Your task to perform on an android device: create a new album in the google photos Image 0: 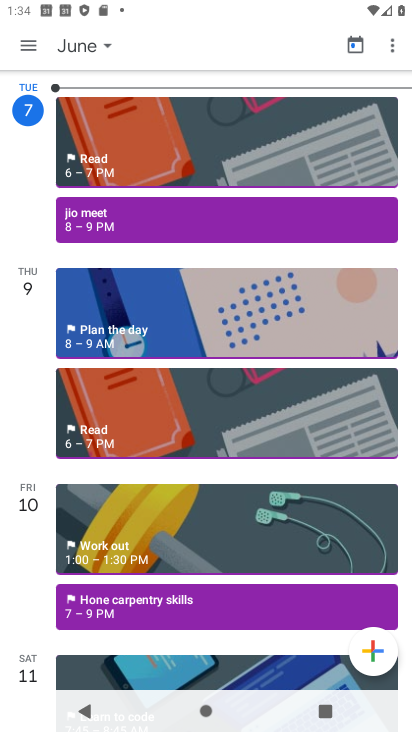
Step 0: press home button
Your task to perform on an android device: create a new album in the google photos Image 1: 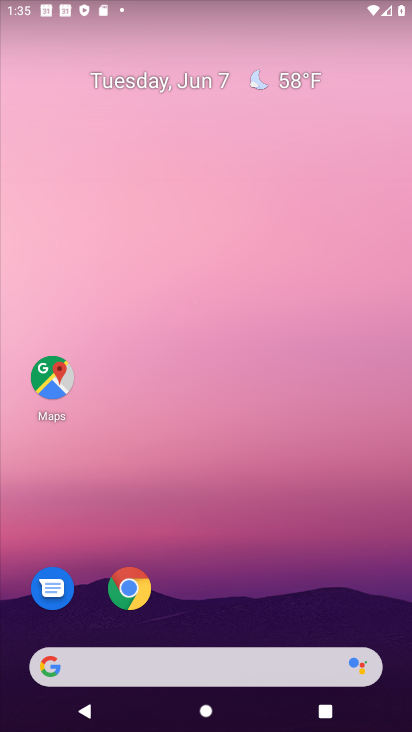
Step 1: drag from (350, 616) to (332, 363)
Your task to perform on an android device: create a new album in the google photos Image 2: 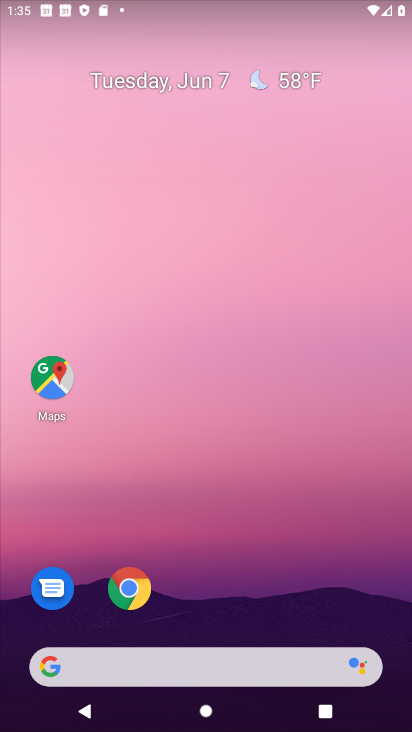
Step 2: drag from (271, 572) to (171, 227)
Your task to perform on an android device: create a new album in the google photos Image 3: 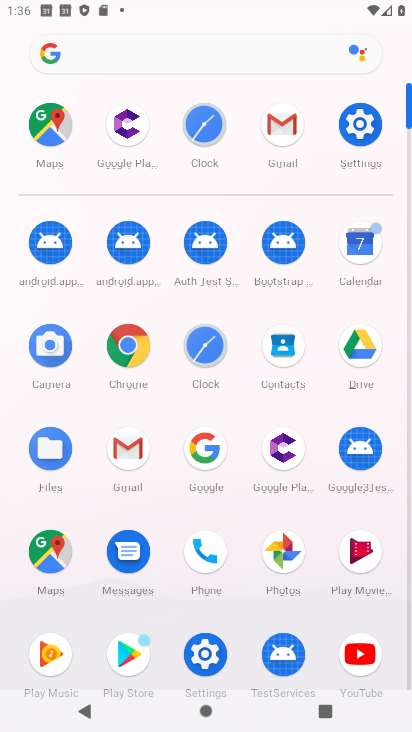
Step 3: click (291, 572)
Your task to perform on an android device: create a new album in the google photos Image 4: 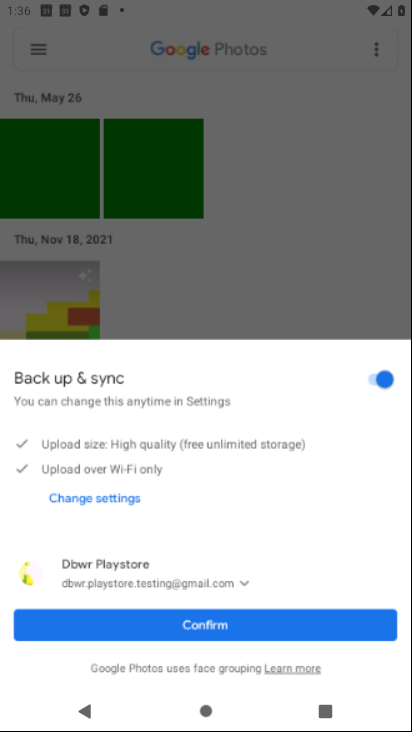
Step 4: click (245, 627)
Your task to perform on an android device: create a new album in the google photos Image 5: 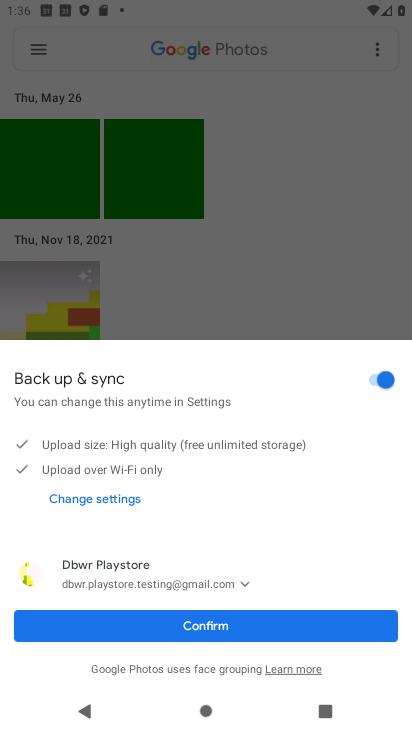
Step 5: click (245, 627)
Your task to perform on an android device: create a new album in the google photos Image 6: 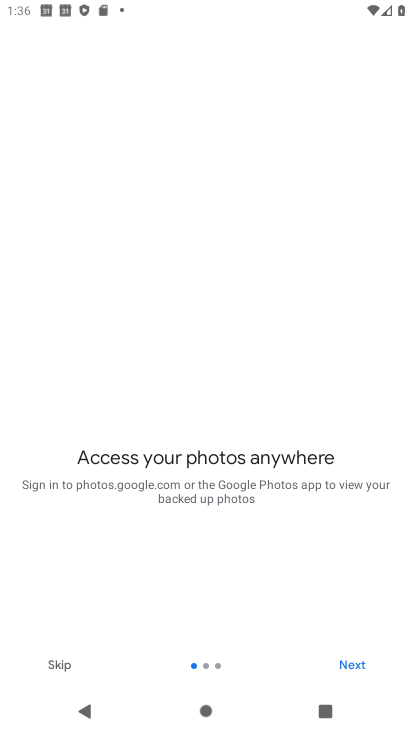
Step 6: click (356, 664)
Your task to perform on an android device: create a new album in the google photos Image 7: 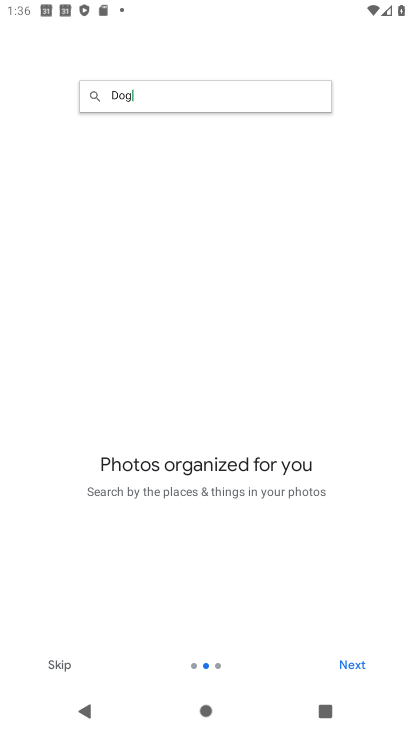
Step 7: click (356, 664)
Your task to perform on an android device: create a new album in the google photos Image 8: 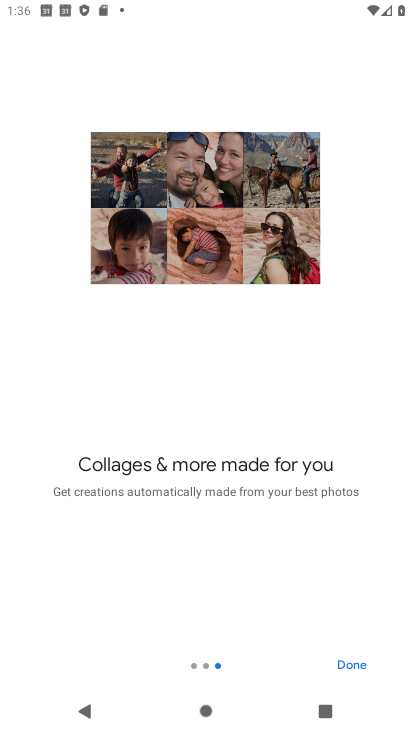
Step 8: click (356, 664)
Your task to perform on an android device: create a new album in the google photos Image 9: 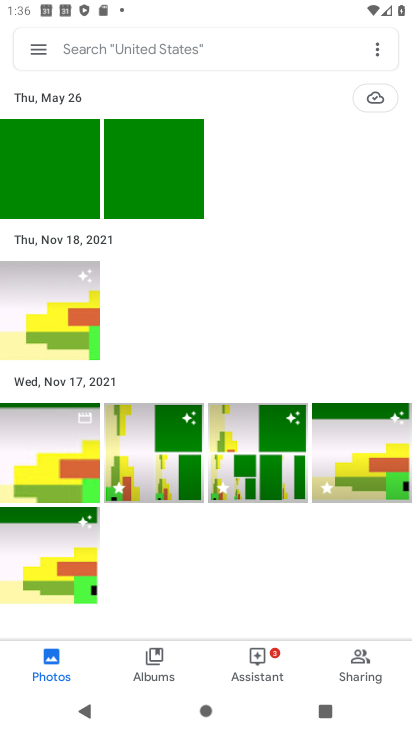
Step 9: click (127, 663)
Your task to perform on an android device: create a new album in the google photos Image 10: 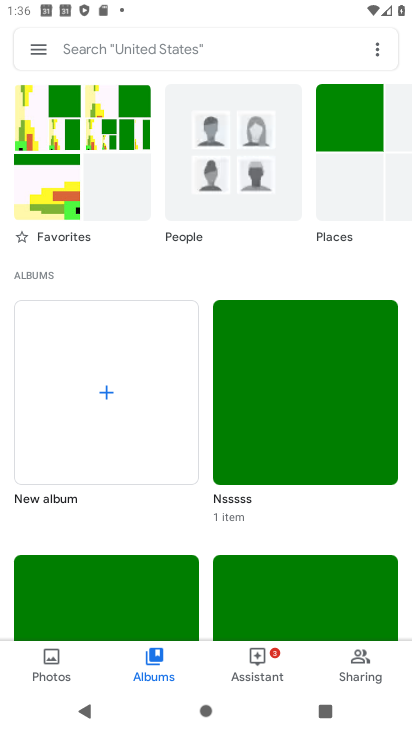
Step 10: click (111, 420)
Your task to perform on an android device: create a new album in the google photos Image 11: 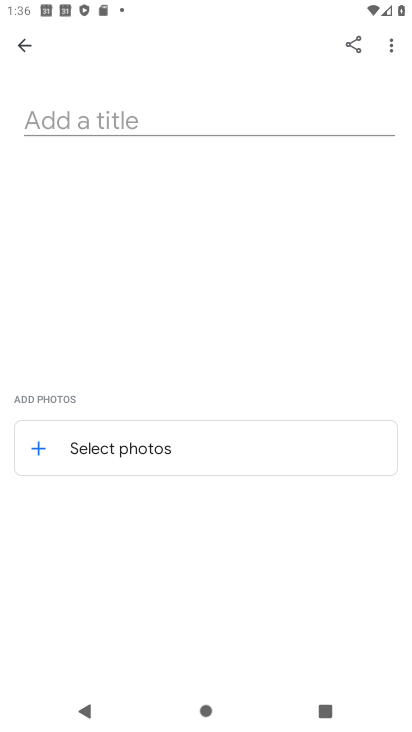
Step 11: click (155, 119)
Your task to perform on an android device: create a new album in the google photos Image 12: 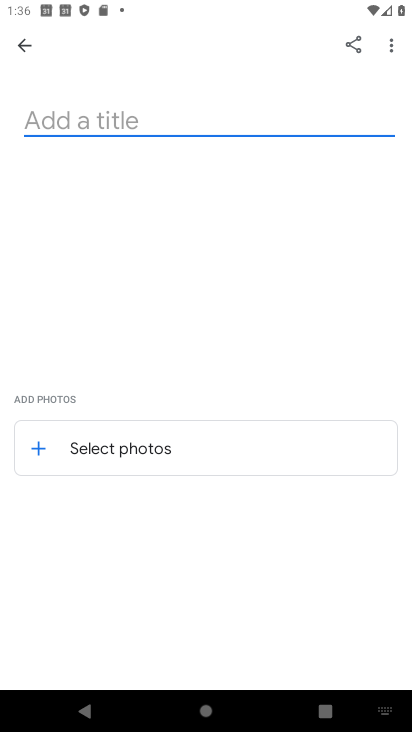
Step 12: type "sdfdsc"
Your task to perform on an android device: create a new album in the google photos Image 13: 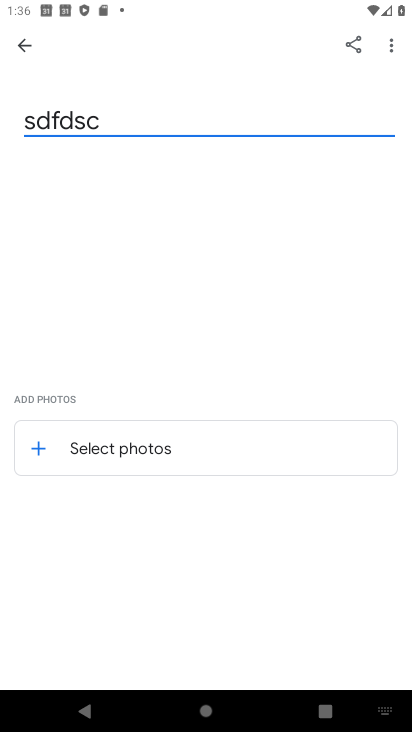
Step 13: click (224, 453)
Your task to perform on an android device: create a new album in the google photos Image 14: 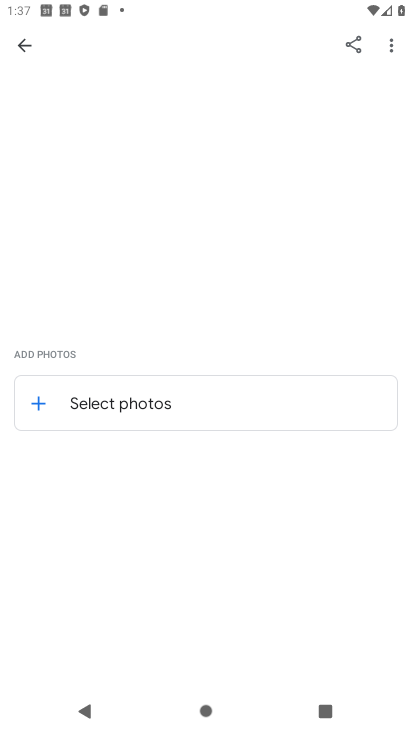
Step 14: click (127, 414)
Your task to perform on an android device: create a new album in the google photos Image 15: 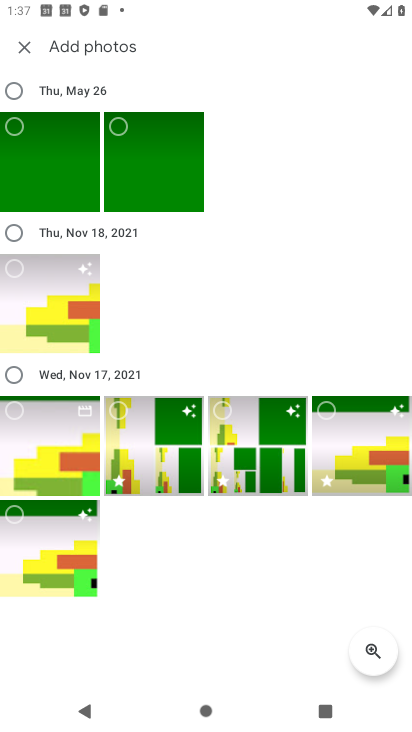
Step 15: click (26, 83)
Your task to perform on an android device: create a new album in the google photos Image 16: 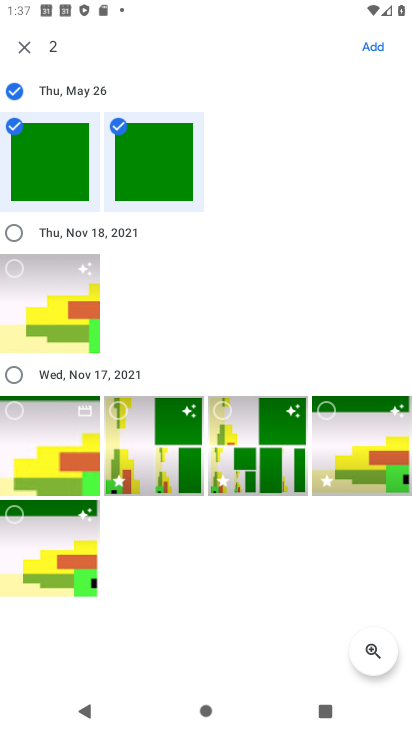
Step 16: click (35, 239)
Your task to perform on an android device: create a new album in the google photos Image 17: 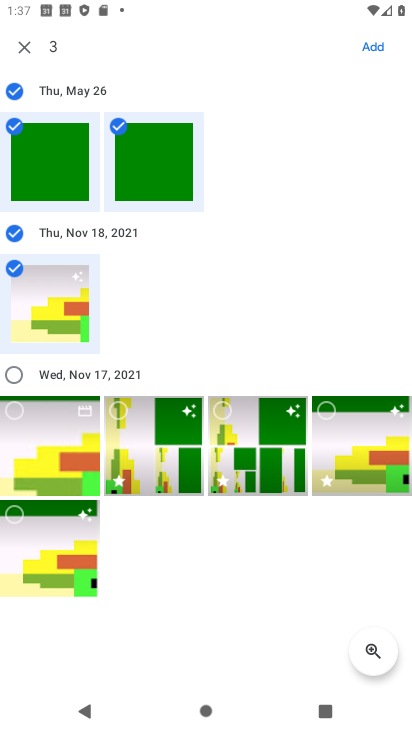
Step 17: click (39, 384)
Your task to perform on an android device: create a new album in the google photos Image 18: 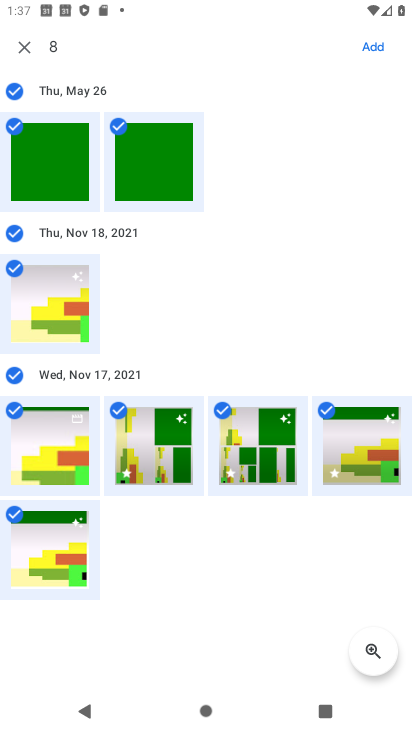
Step 18: task complete